Your task to perform on an android device: set the timer Image 0: 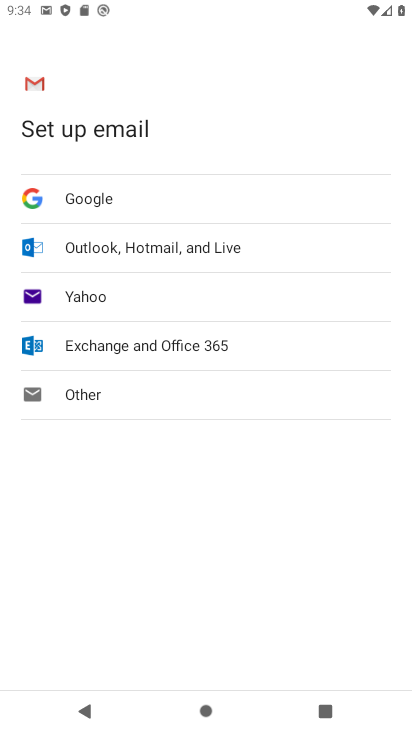
Step 0: press home button
Your task to perform on an android device: set the timer Image 1: 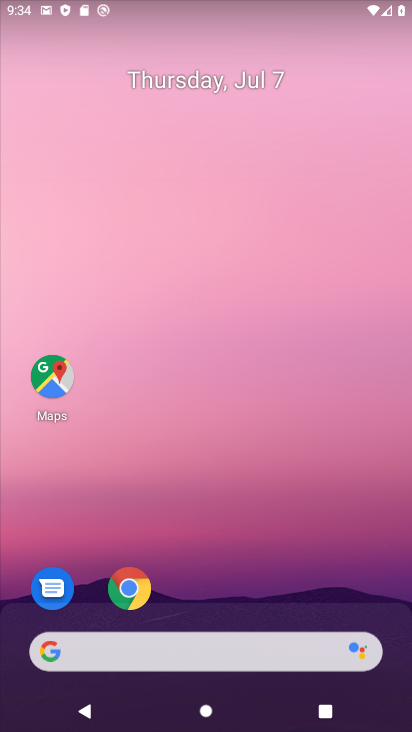
Step 1: drag from (235, 630) to (326, 17)
Your task to perform on an android device: set the timer Image 2: 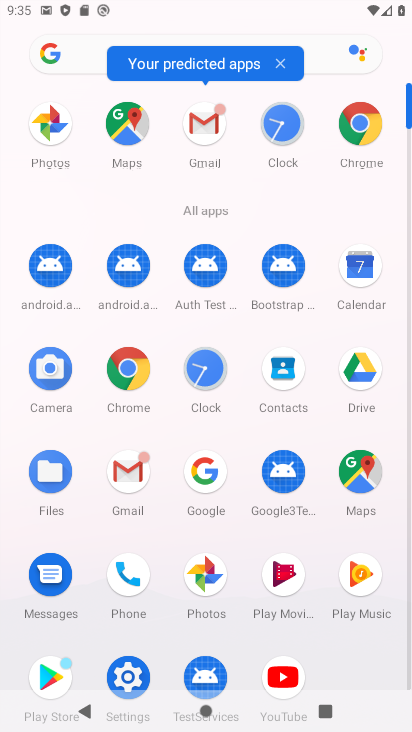
Step 2: click (210, 370)
Your task to perform on an android device: set the timer Image 3: 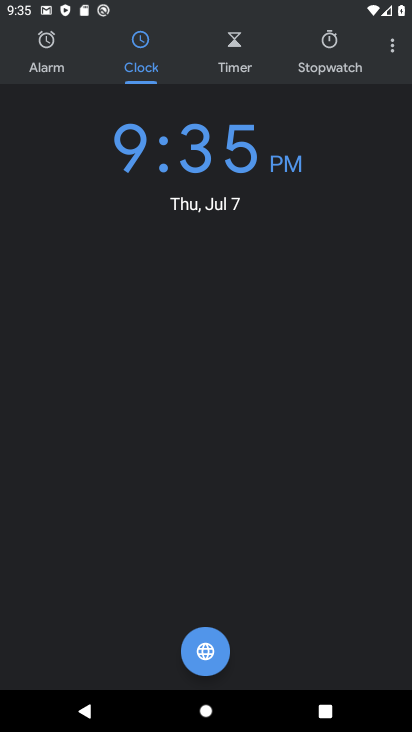
Step 3: click (234, 48)
Your task to perform on an android device: set the timer Image 4: 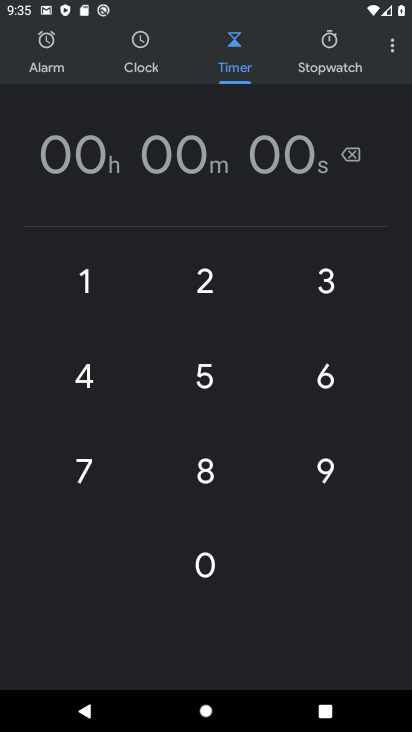
Step 4: click (205, 255)
Your task to perform on an android device: set the timer Image 5: 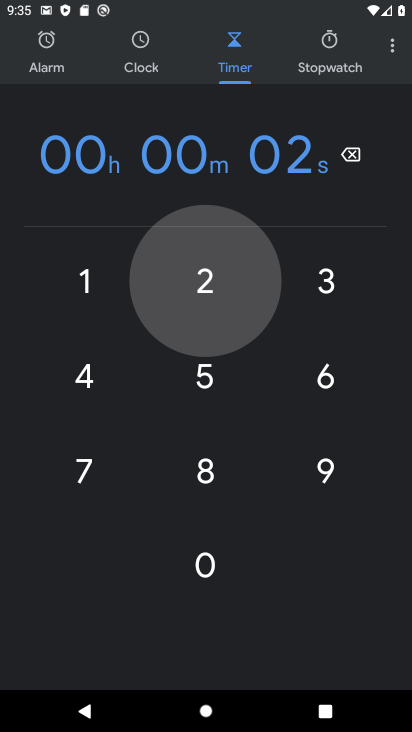
Step 5: click (205, 255)
Your task to perform on an android device: set the timer Image 6: 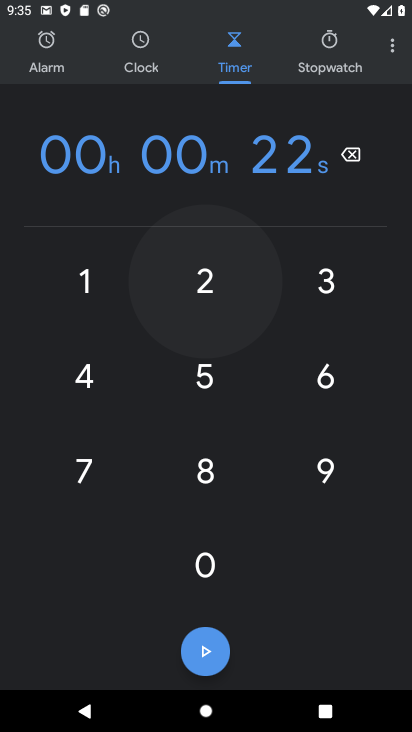
Step 6: click (208, 263)
Your task to perform on an android device: set the timer Image 7: 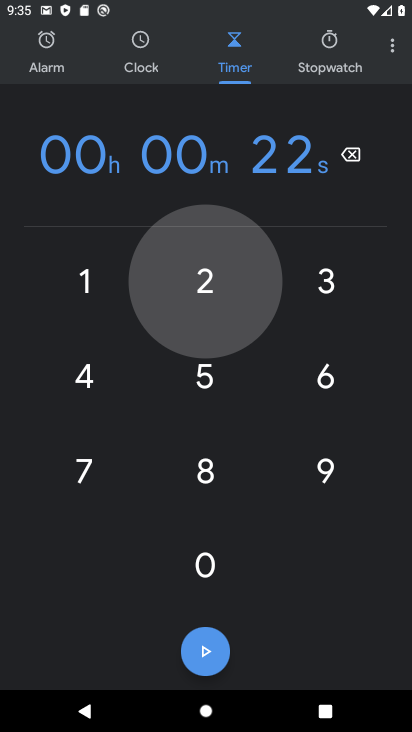
Step 7: click (208, 263)
Your task to perform on an android device: set the timer Image 8: 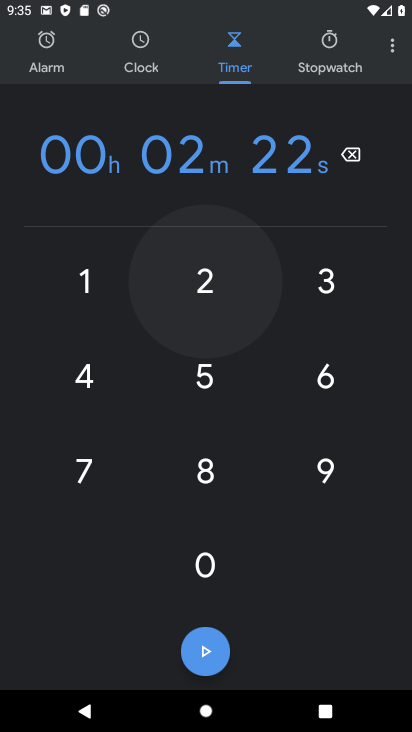
Step 8: click (208, 263)
Your task to perform on an android device: set the timer Image 9: 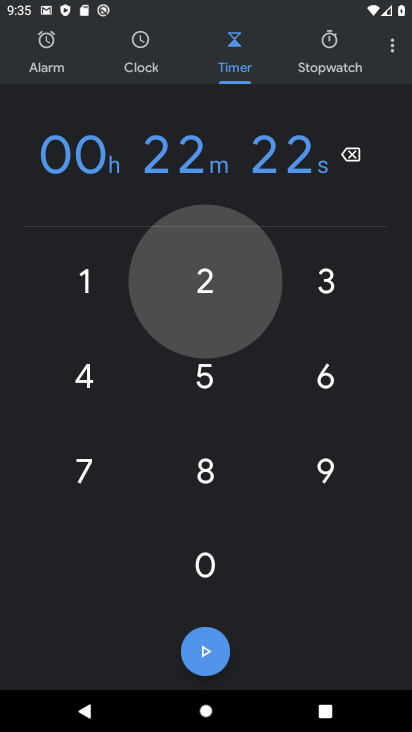
Step 9: click (208, 263)
Your task to perform on an android device: set the timer Image 10: 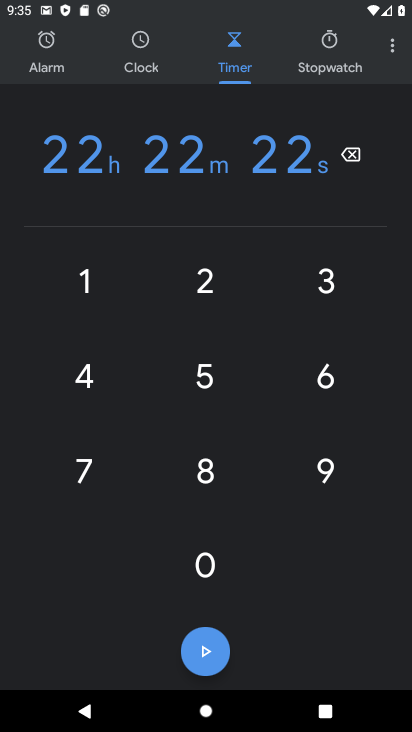
Step 10: click (208, 263)
Your task to perform on an android device: set the timer Image 11: 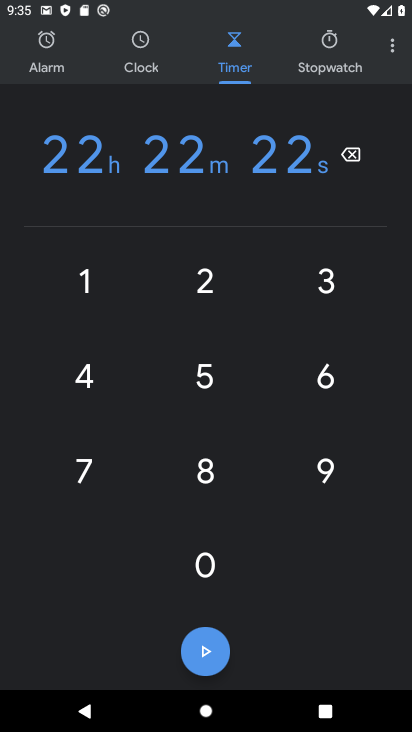
Step 11: click (174, 659)
Your task to perform on an android device: set the timer Image 12: 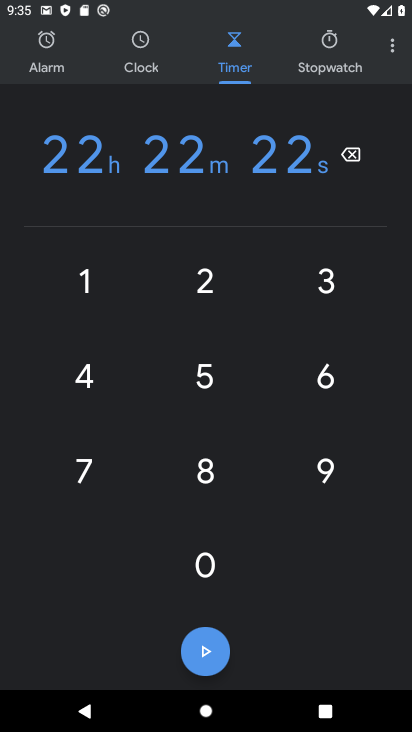
Step 12: click (193, 666)
Your task to perform on an android device: set the timer Image 13: 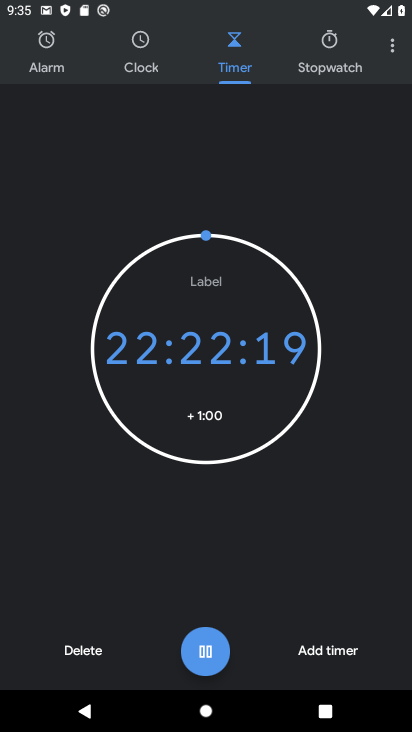
Step 13: task complete